Your task to perform on an android device: toggle show notifications on the lock screen Image 0: 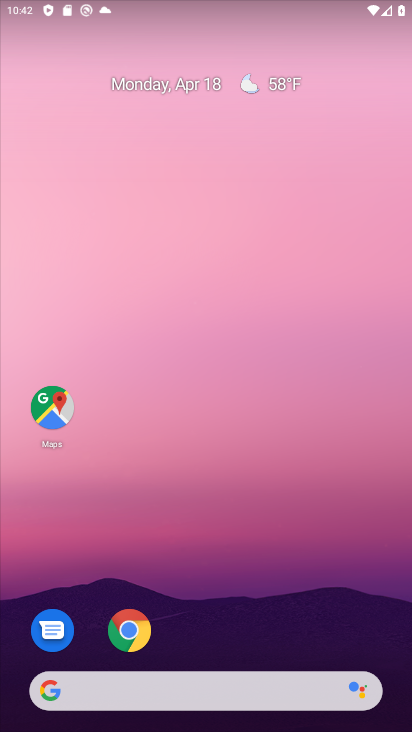
Step 0: drag from (203, 656) to (271, 108)
Your task to perform on an android device: toggle show notifications on the lock screen Image 1: 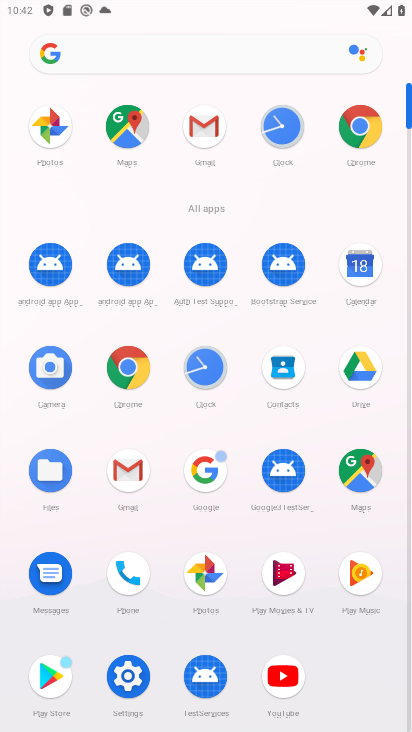
Step 1: click (202, 473)
Your task to perform on an android device: toggle show notifications on the lock screen Image 2: 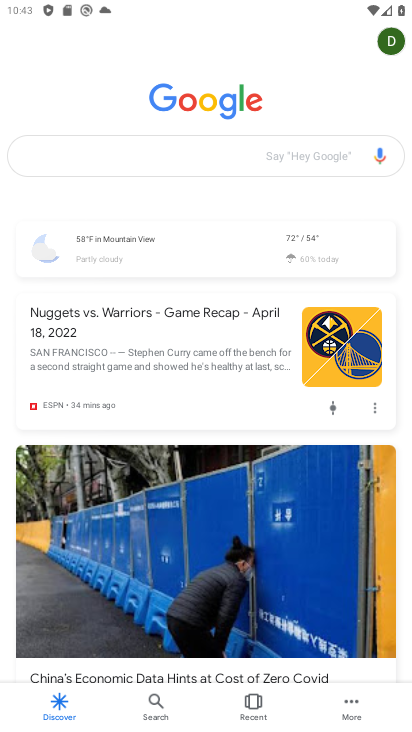
Step 2: press home button
Your task to perform on an android device: toggle show notifications on the lock screen Image 3: 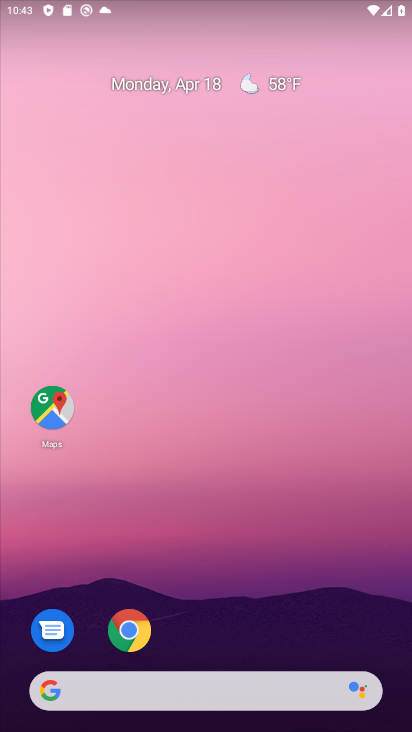
Step 3: drag from (212, 644) to (265, 138)
Your task to perform on an android device: toggle show notifications on the lock screen Image 4: 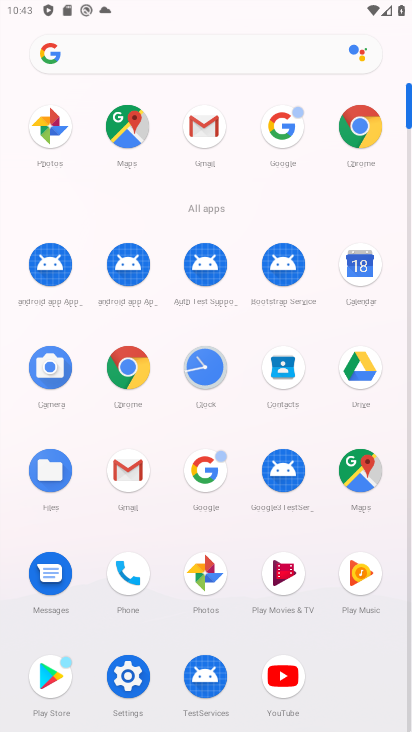
Step 4: click (123, 674)
Your task to perform on an android device: toggle show notifications on the lock screen Image 5: 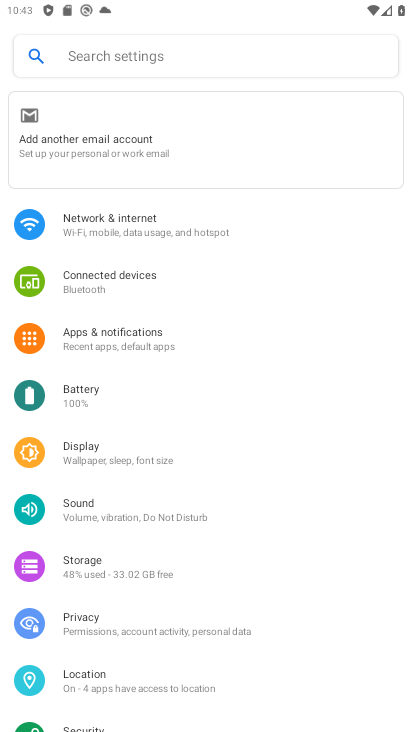
Step 5: drag from (289, 601) to (263, 236)
Your task to perform on an android device: toggle show notifications on the lock screen Image 6: 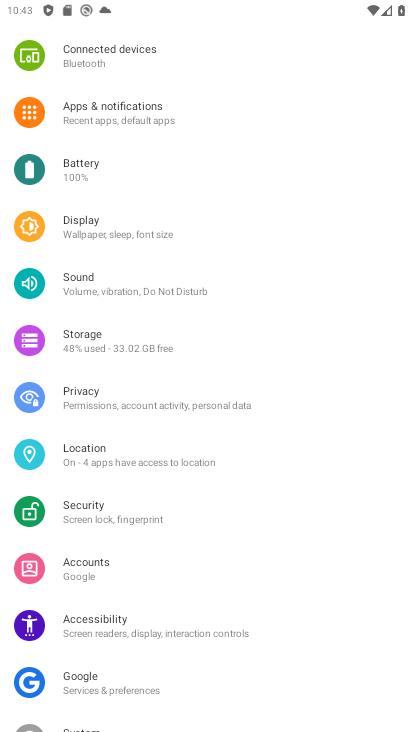
Step 6: click (138, 118)
Your task to perform on an android device: toggle show notifications on the lock screen Image 7: 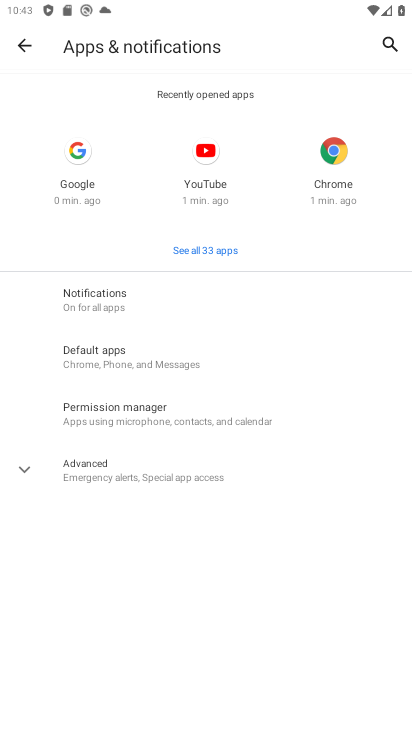
Step 7: click (135, 300)
Your task to perform on an android device: toggle show notifications on the lock screen Image 8: 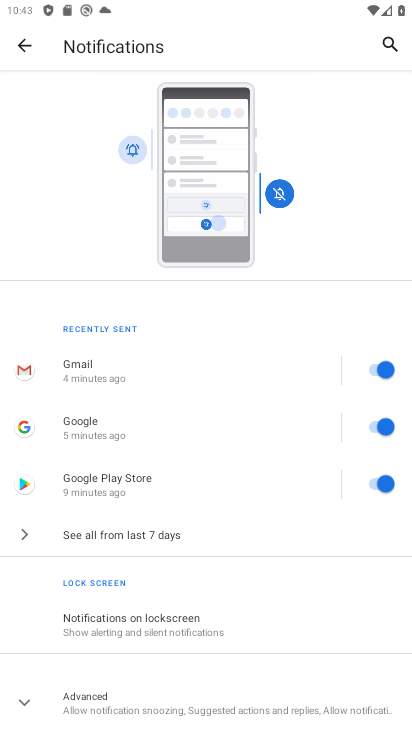
Step 8: click (183, 625)
Your task to perform on an android device: toggle show notifications on the lock screen Image 9: 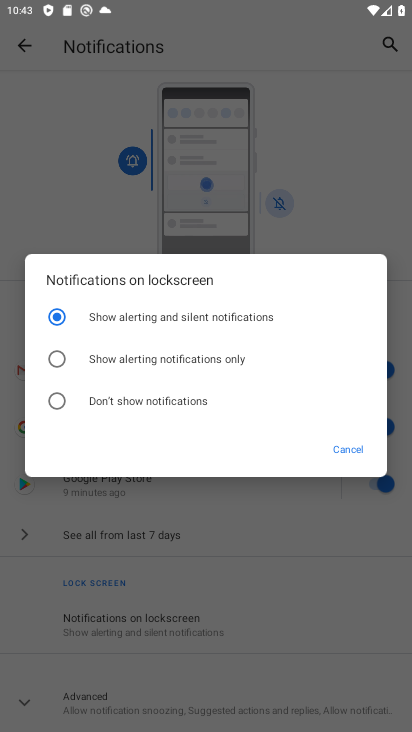
Step 9: click (42, 369)
Your task to perform on an android device: toggle show notifications on the lock screen Image 10: 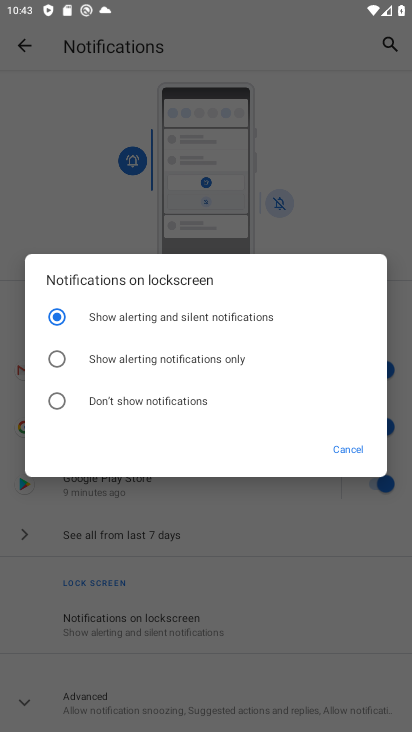
Step 10: click (59, 350)
Your task to perform on an android device: toggle show notifications on the lock screen Image 11: 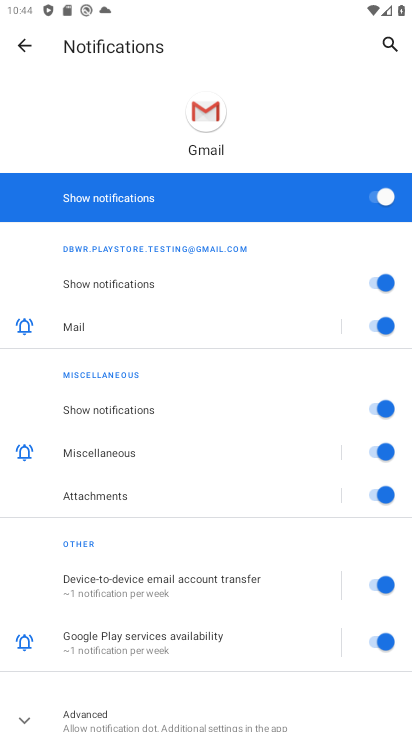
Step 11: click (30, 49)
Your task to perform on an android device: toggle show notifications on the lock screen Image 12: 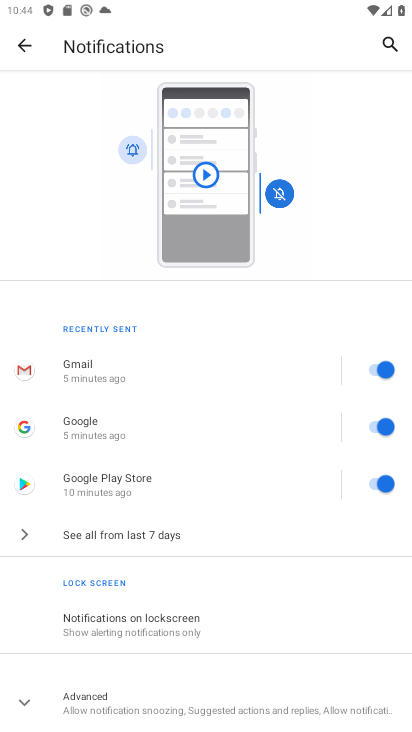
Step 12: click (206, 627)
Your task to perform on an android device: toggle show notifications on the lock screen Image 13: 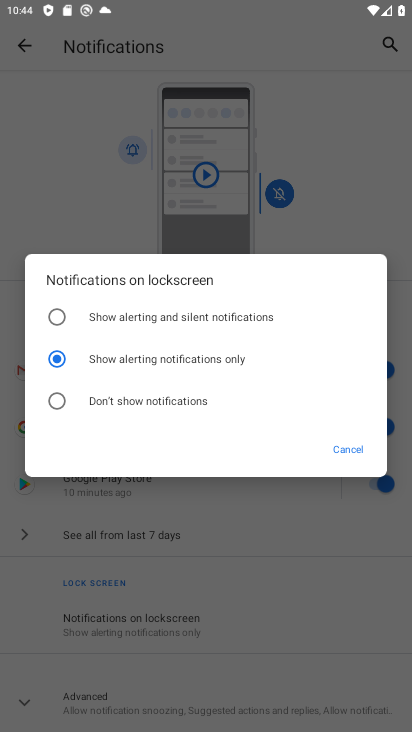
Step 13: task complete